Your task to perform on an android device: turn off improve location accuracy Image 0: 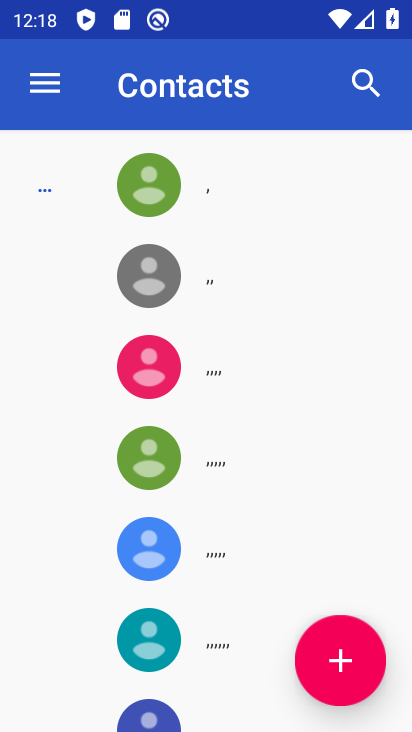
Step 0: press home button
Your task to perform on an android device: turn off improve location accuracy Image 1: 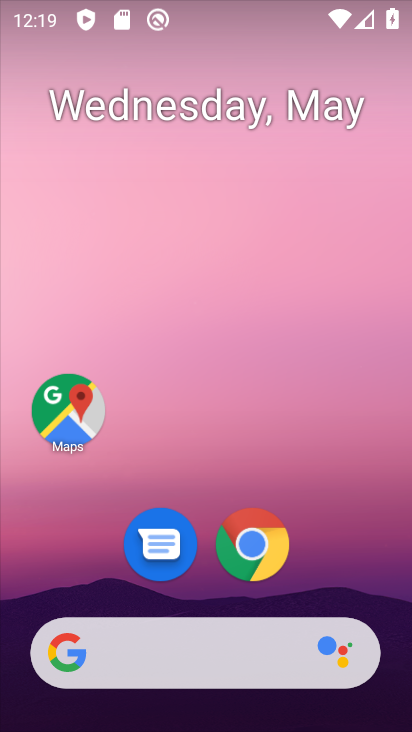
Step 1: drag from (363, 562) to (295, 185)
Your task to perform on an android device: turn off improve location accuracy Image 2: 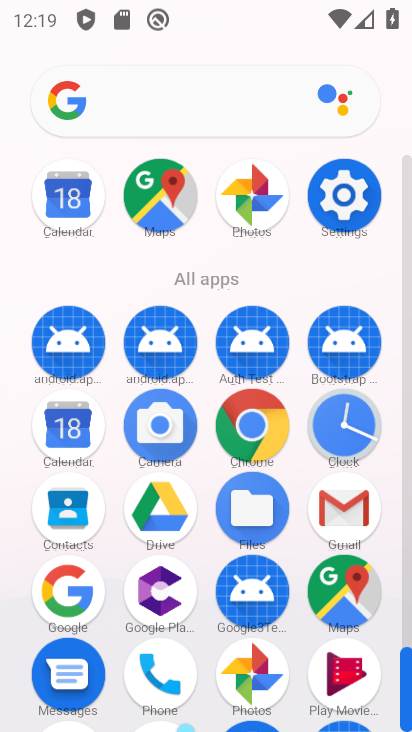
Step 2: click (369, 204)
Your task to perform on an android device: turn off improve location accuracy Image 3: 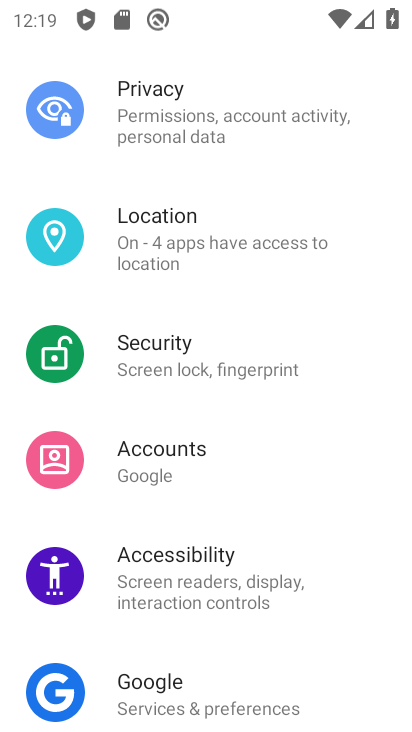
Step 3: click (180, 249)
Your task to perform on an android device: turn off improve location accuracy Image 4: 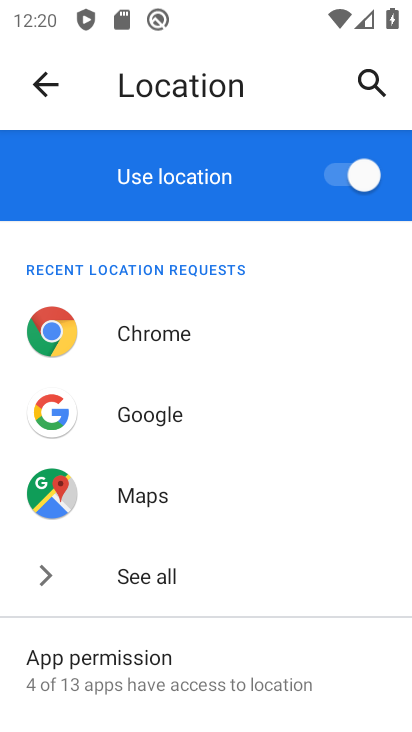
Step 4: drag from (295, 452) to (350, 13)
Your task to perform on an android device: turn off improve location accuracy Image 5: 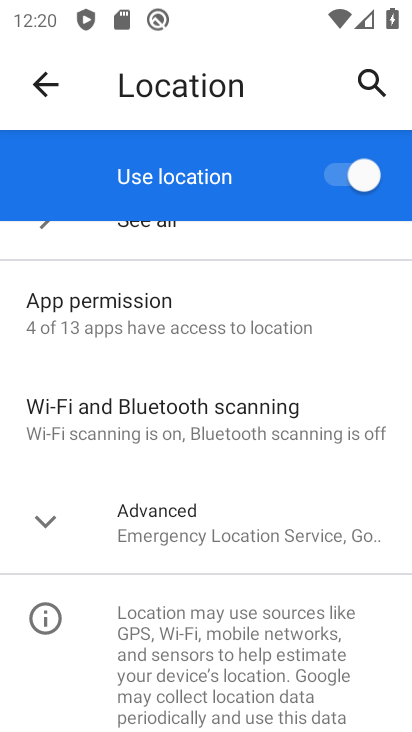
Step 5: click (199, 504)
Your task to perform on an android device: turn off improve location accuracy Image 6: 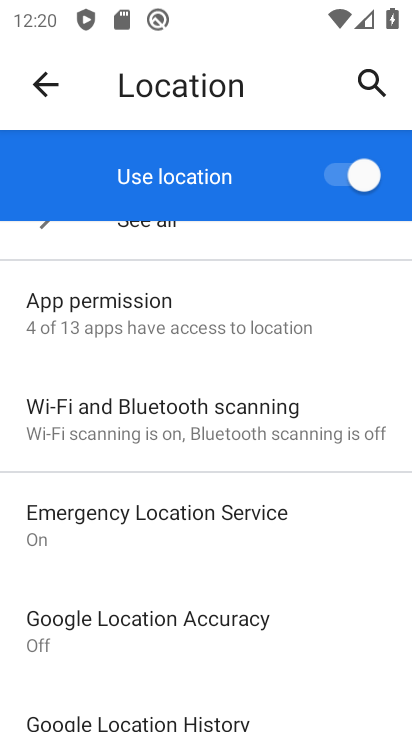
Step 6: drag from (222, 532) to (297, 269)
Your task to perform on an android device: turn off improve location accuracy Image 7: 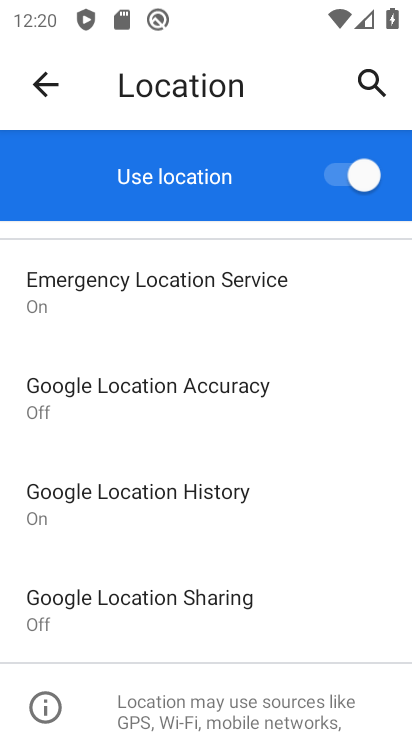
Step 7: click (159, 399)
Your task to perform on an android device: turn off improve location accuracy Image 8: 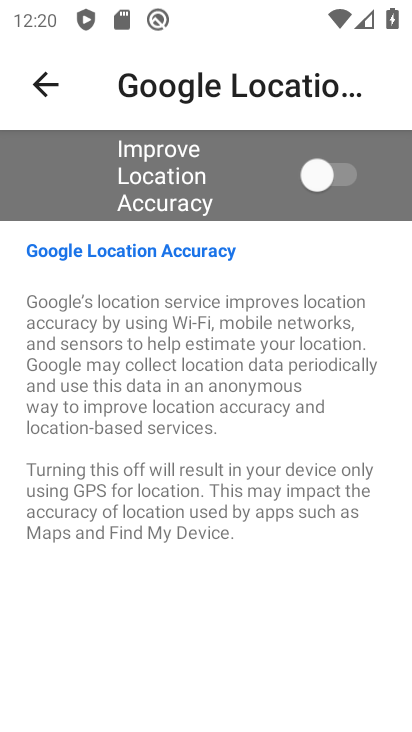
Step 8: task complete